Your task to perform on an android device: check out phone information Image 0: 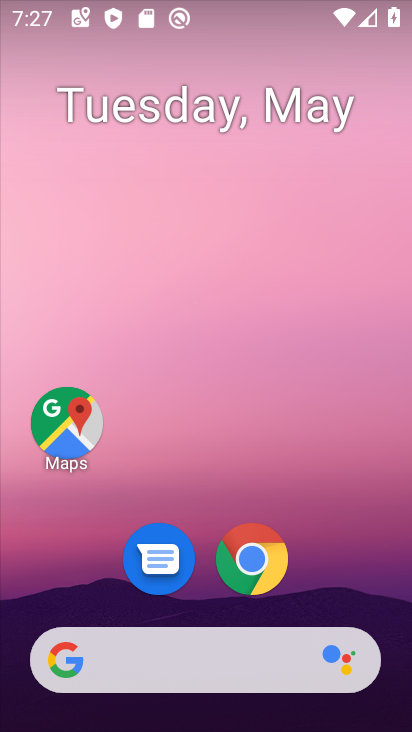
Step 0: drag from (392, 665) to (228, 40)
Your task to perform on an android device: check out phone information Image 1: 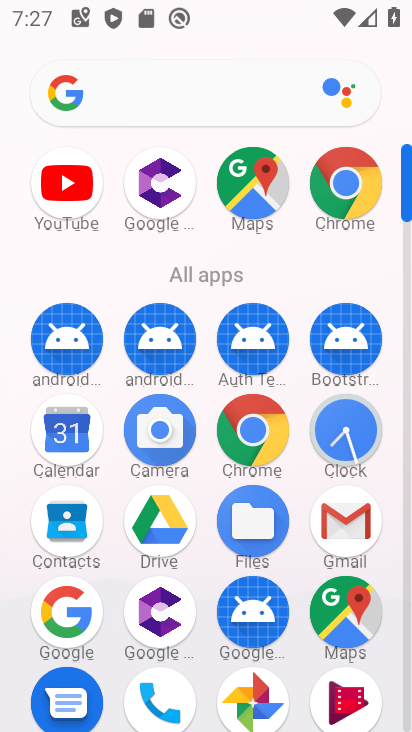
Step 1: drag from (194, 652) to (225, 138)
Your task to perform on an android device: check out phone information Image 2: 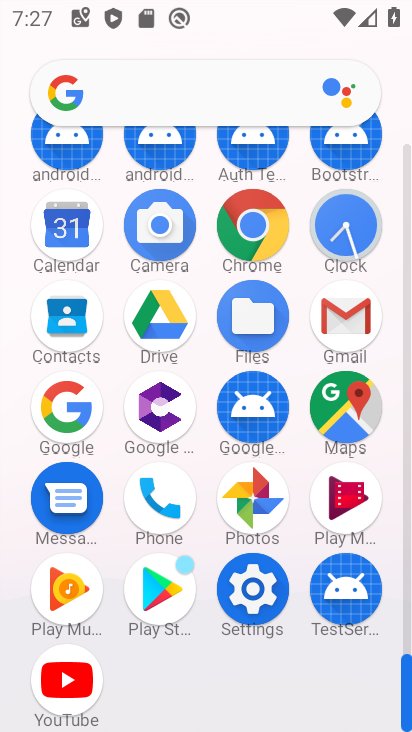
Step 2: click (257, 608)
Your task to perform on an android device: check out phone information Image 3: 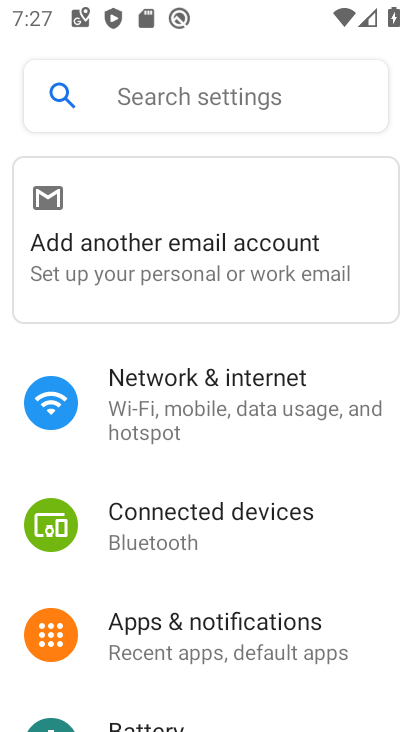
Step 3: drag from (287, 655) to (290, 77)
Your task to perform on an android device: check out phone information Image 4: 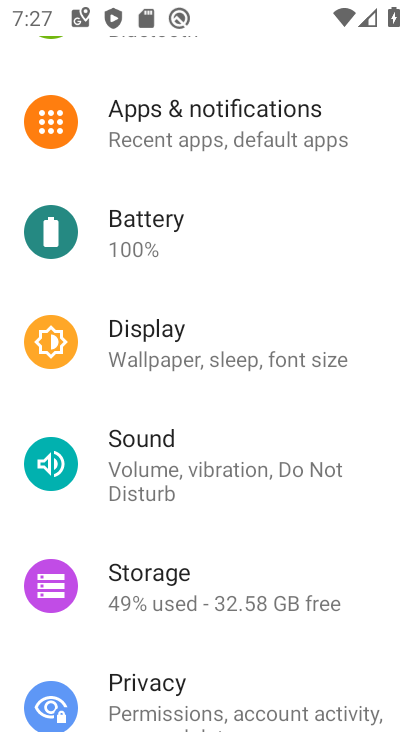
Step 4: drag from (239, 646) to (234, 153)
Your task to perform on an android device: check out phone information Image 5: 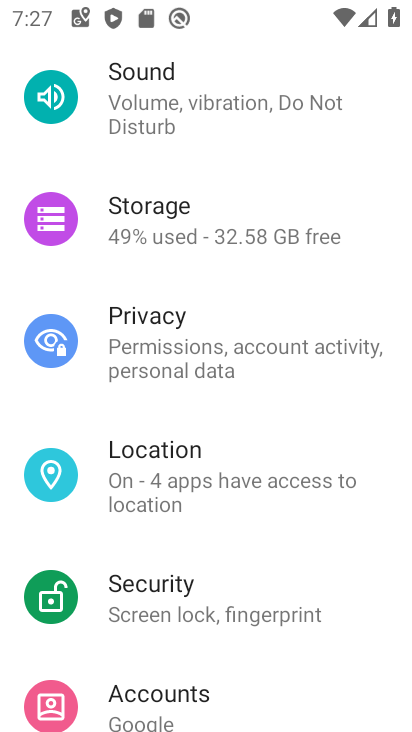
Step 5: drag from (231, 646) to (207, 110)
Your task to perform on an android device: check out phone information Image 6: 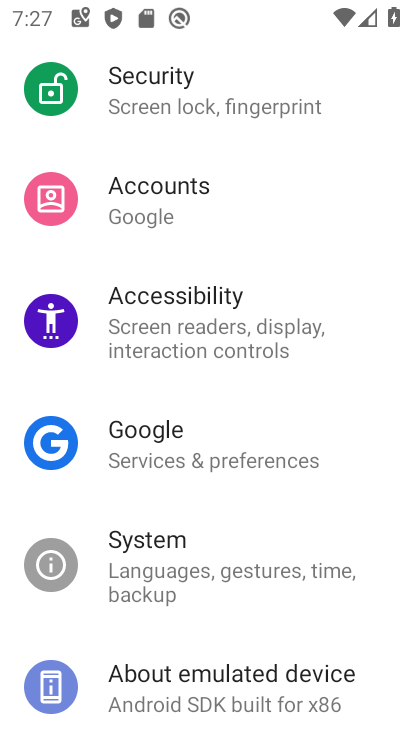
Step 6: drag from (240, 623) to (242, 218)
Your task to perform on an android device: check out phone information Image 7: 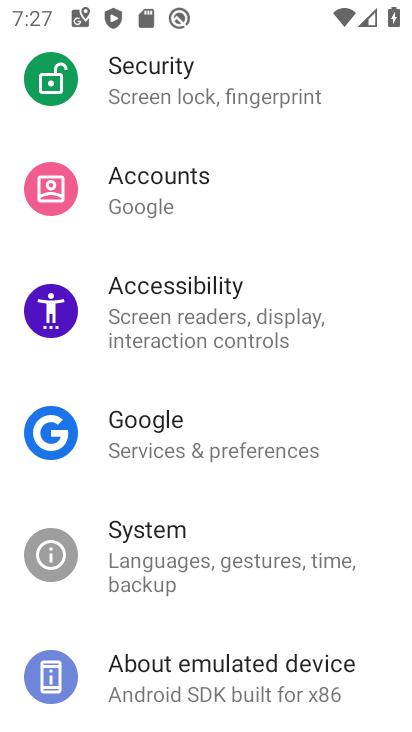
Step 7: click (170, 696)
Your task to perform on an android device: check out phone information Image 8: 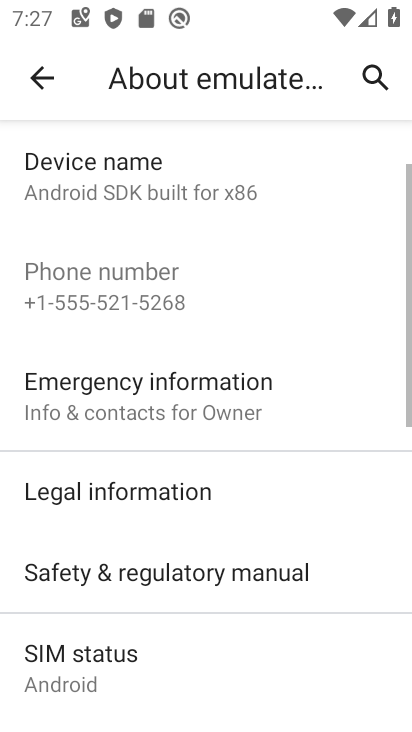
Step 8: task complete